Your task to perform on an android device: turn on sleep mode Image 0: 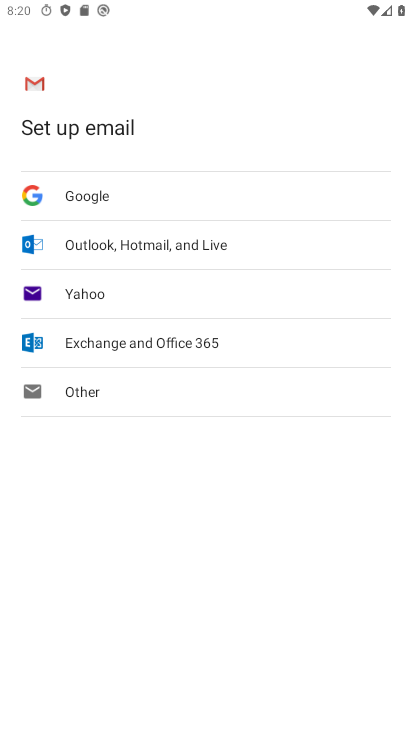
Step 0: press home button
Your task to perform on an android device: turn on sleep mode Image 1: 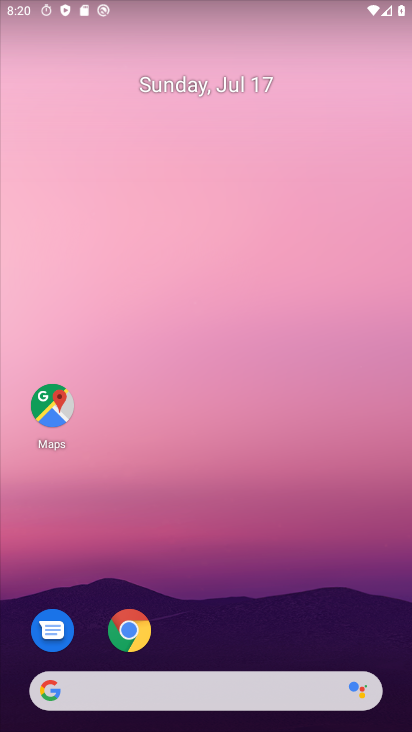
Step 1: drag from (220, 416) to (330, 233)
Your task to perform on an android device: turn on sleep mode Image 2: 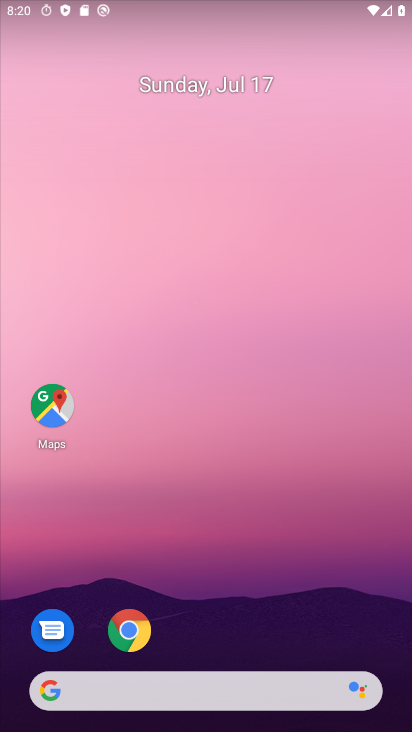
Step 2: drag from (13, 715) to (366, 17)
Your task to perform on an android device: turn on sleep mode Image 3: 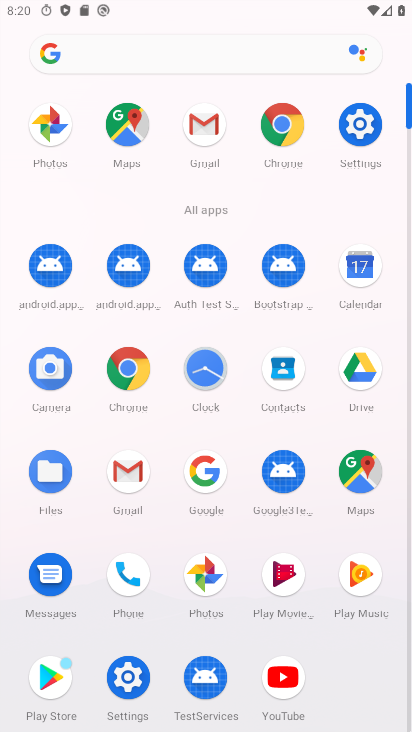
Step 3: click (126, 685)
Your task to perform on an android device: turn on sleep mode Image 4: 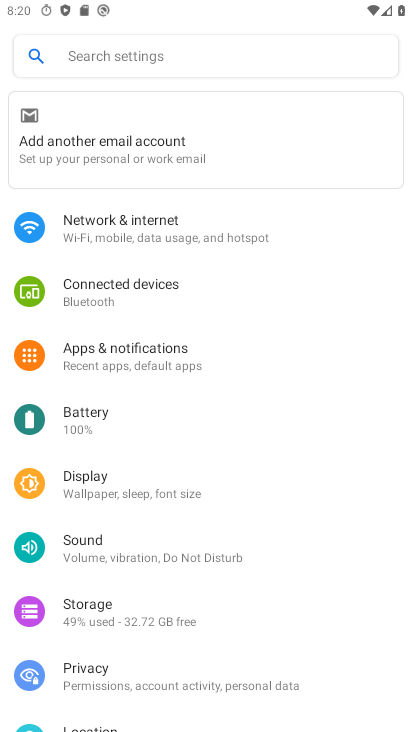
Step 4: click (145, 488)
Your task to perform on an android device: turn on sleep mode Image 5: 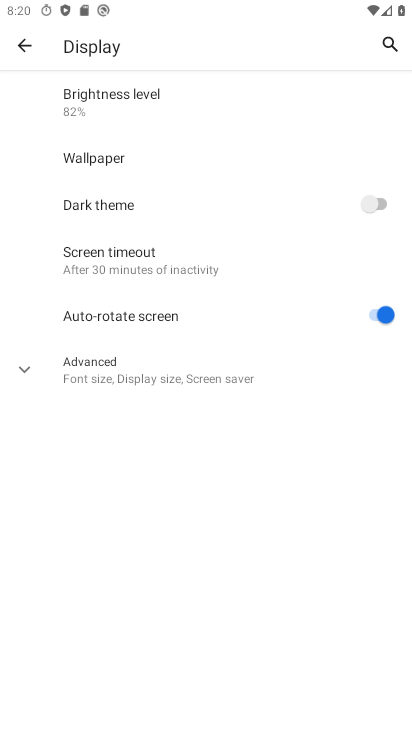
Step 5: click (119, 363)
Your task to perform on an android device: turn on sleep mode Image 6: 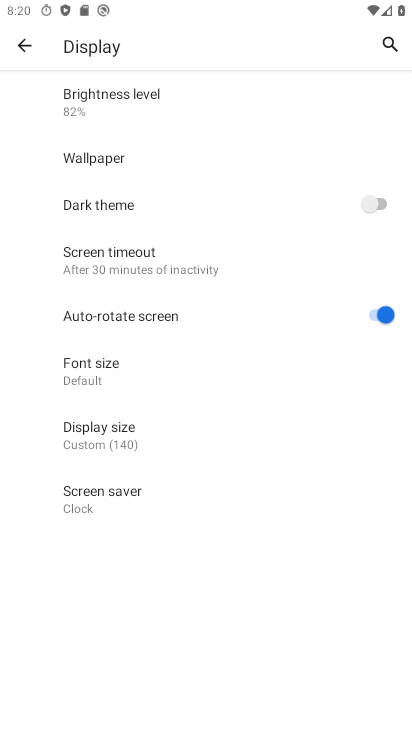
Step 6: click (15, 43)
Your task to perform on an android device: turn on sleep mode Image 7: 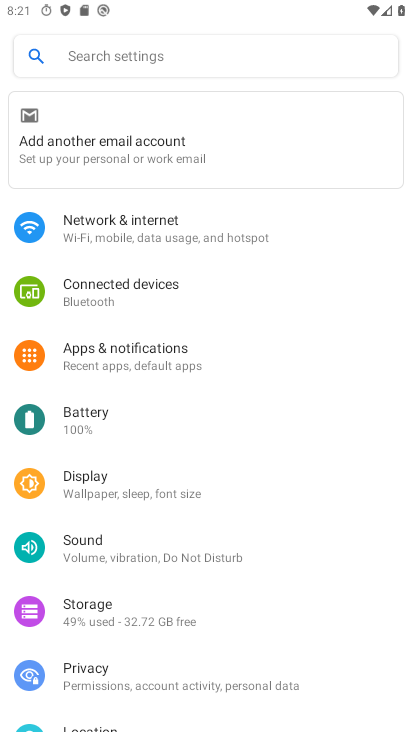
Step 7: click (156, 362)
Your task to perform on an android device: turn on sleep mode Image 8: 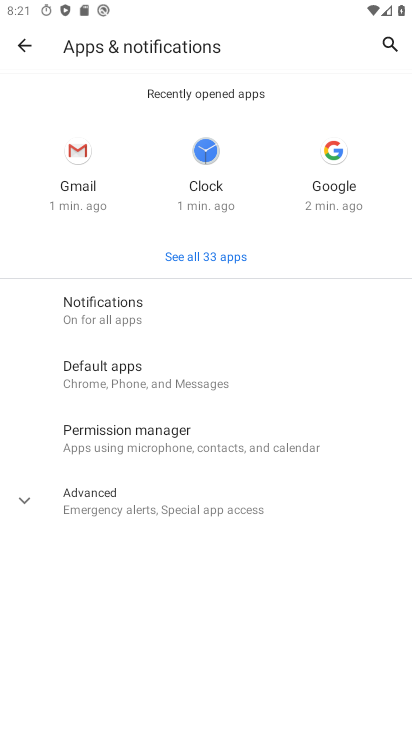
Step 8: click (136, 489)
Your task to perform on an android device: turn on sleep mode Image 9: 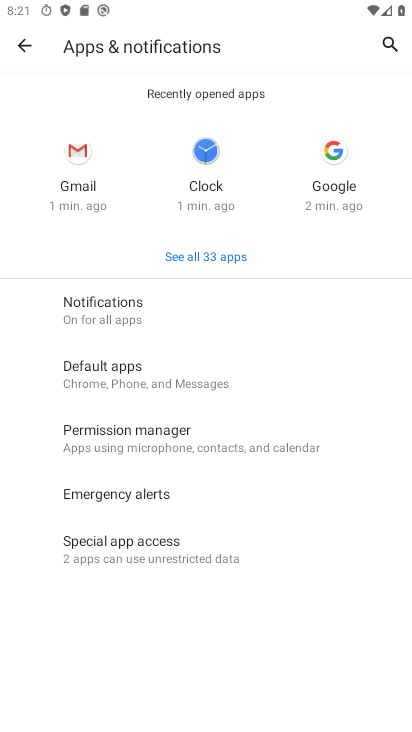
Step 9: click (26, 38)
Your task to perform on an android device: turn on sleep mode Image 10: 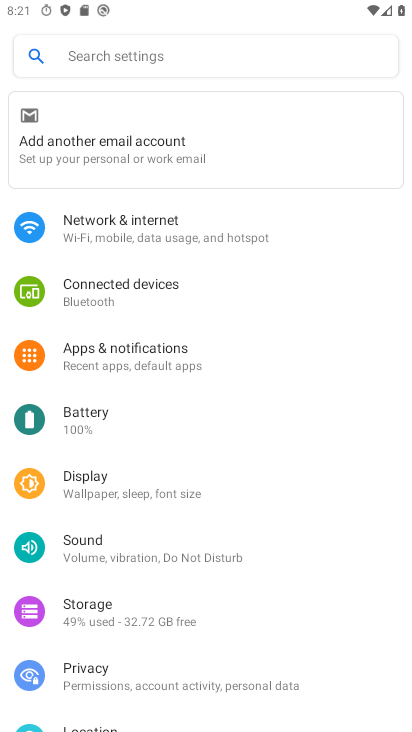
Step 10: task complete